Your task to perform on an android device: toggle notifications settings in the gmail app Image 0: 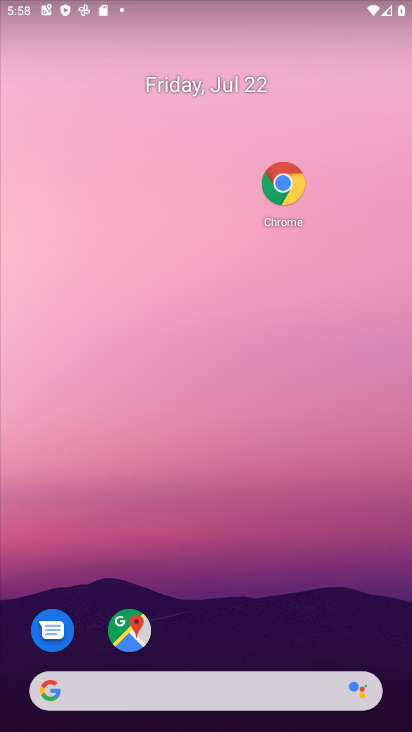
Step 0: drag from (194, 638) to (176, 321)
Your task to perform on an android device: toggle notifications settings in the gmail app Image 1: 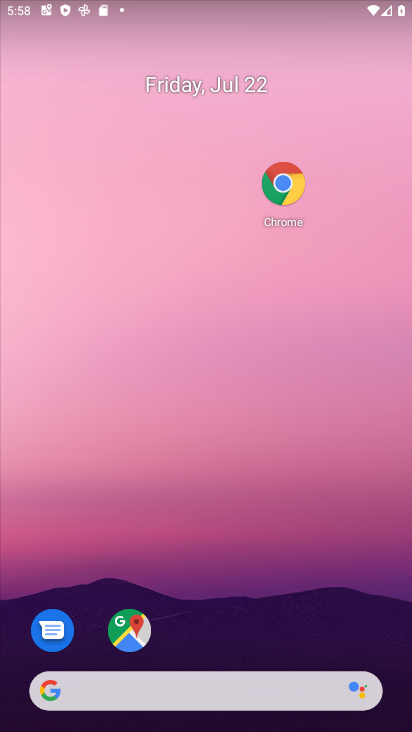
Step 1: drag from (169, 523) to (169, 259)
Your task to perform on an android device: toggle notifications settings in the gmail app Image 2: 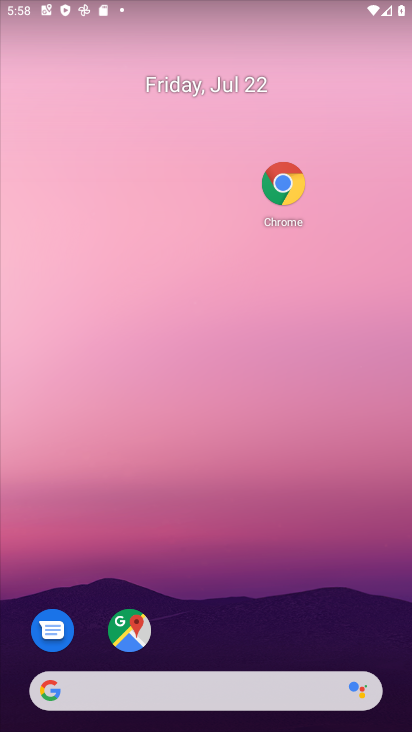
Step 2: drag from (178, 525) to (196, 186)
Your task to perform on an android device: toggle notifications settings in the gmail app Image 3: 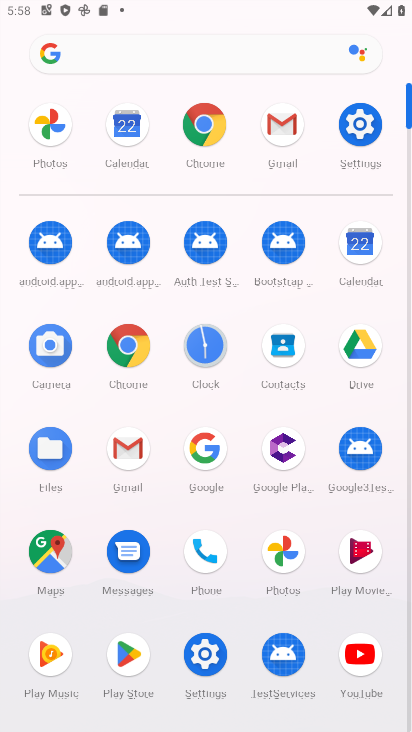
Step 3: click (127, 453)
Your task to perform on an android device: toggle notifications settings in the gmail app Image 4: 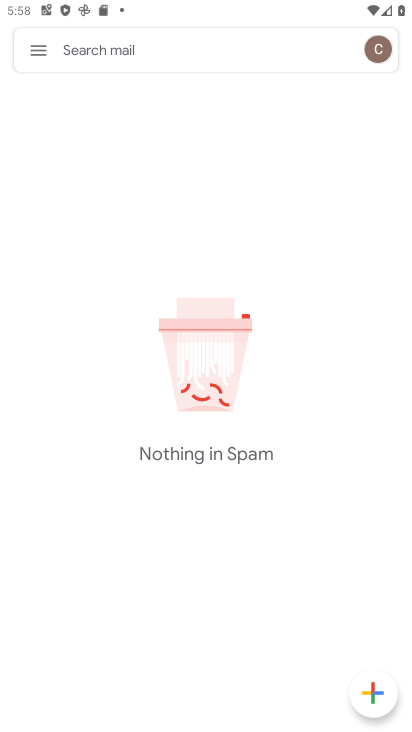
Step 4: click (37, 51)
Your task to perform on an android device: toggle notifications settings in the gmail app Image 5: 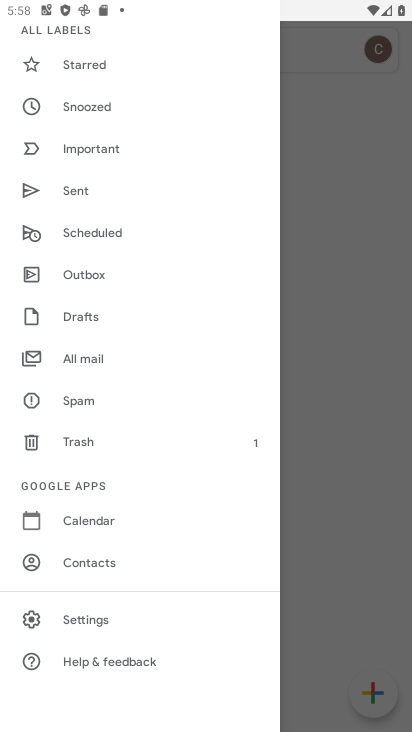
Step 5: click (80, 625)
Your task to perform on an android device: toggle notifications settings in the gmail app Image 6: 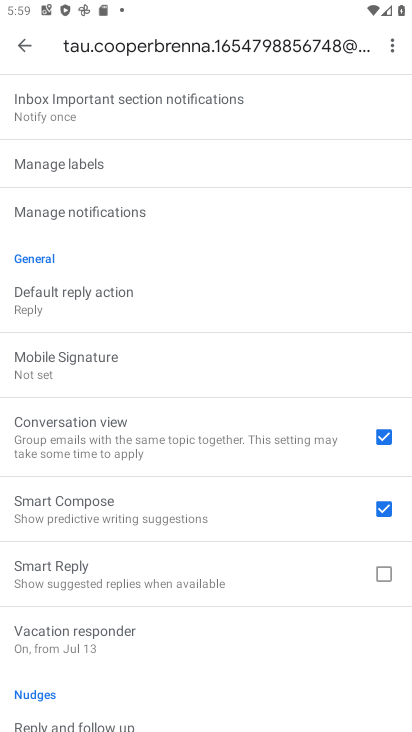
Step 6: click (99, 206)
Your task to perform on an android device: toggle notifications settings in the gmail app Image 7: 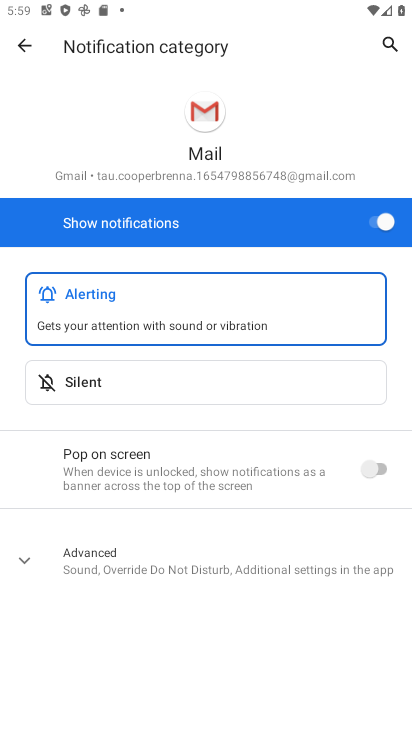
Step 7: click (370, 224)
Your task to perform on an android device: toggle notifications settings in the gmail app Image 8: 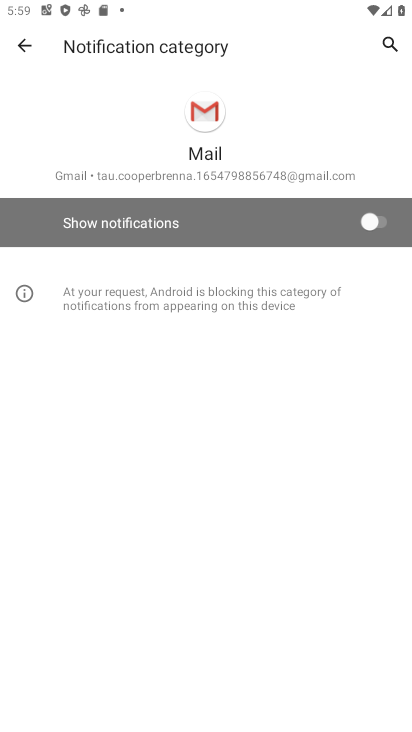
Step 8: task complete